Your task to perform on an android device: Open Youtube and go to the subscriptions tab Image 0: 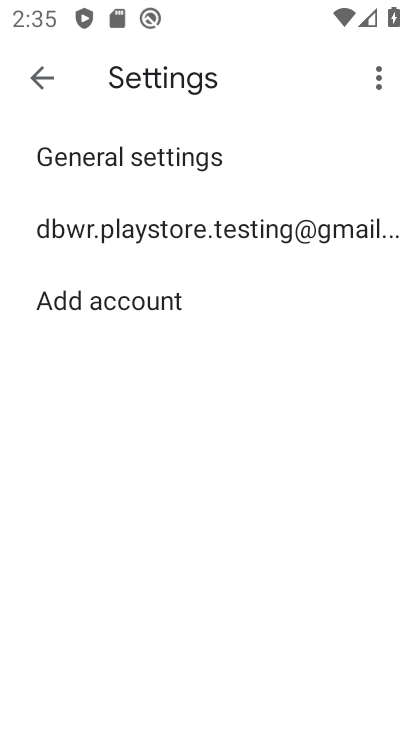
Step 0: click (164, 230)
Your task to perform on an android device: Open Youtube and go to the subscriptions tab Image 1: 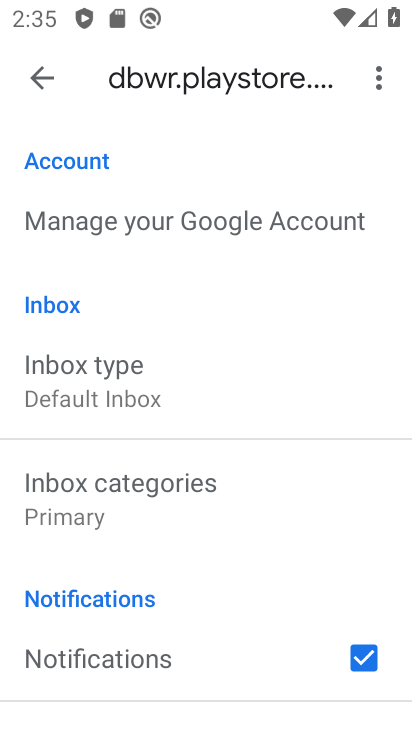
Step 1: press back button
Your task to perform on an android device: Open Youtube and go to the subscriptions tab Image 2: 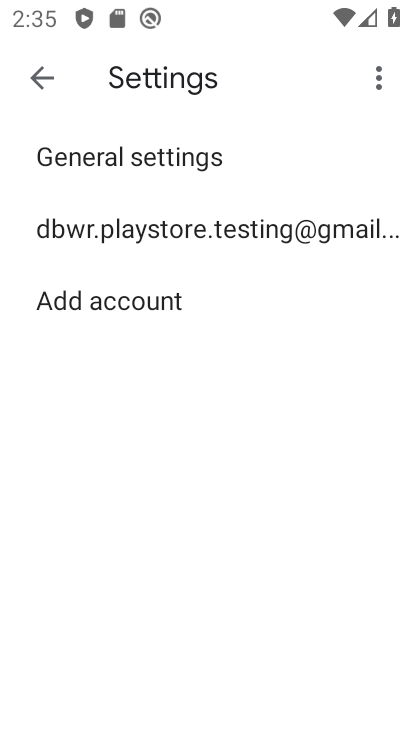
Step 2: press back button
Your task to perform on an android device: Open Youtube and go to the subscriptions tab Image 3: 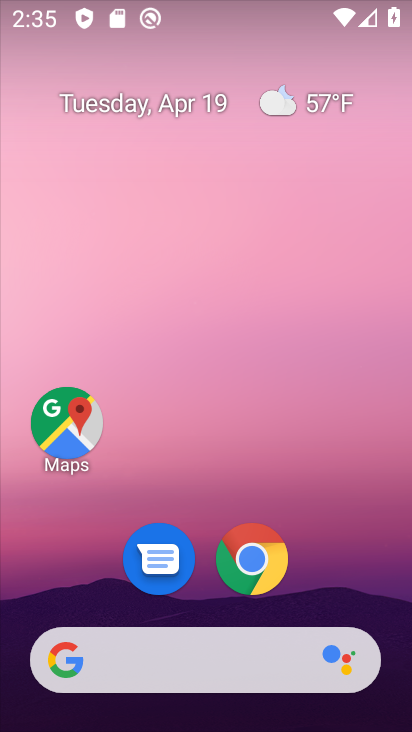
Step 3: drag from (185, 596) to (228, 150)
Your task to perform on an android device: Open Youtube and go to the subscriptions tab Image 4: 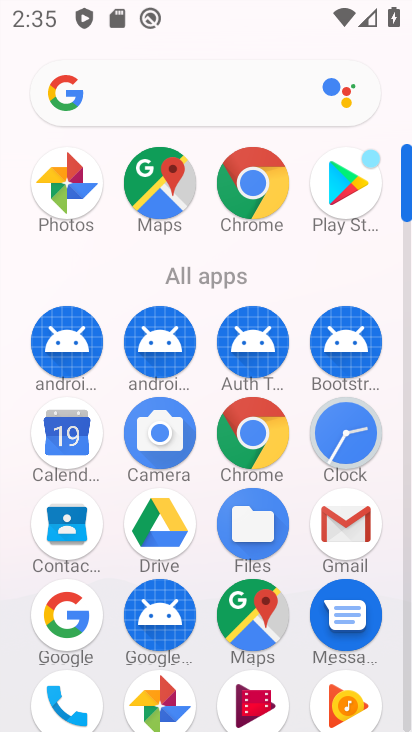
Step 4: drag from (191, 595) to (283, 207)
Your task to perform on an android device: Open Youtube and go to the subscriptions tab Image 5: 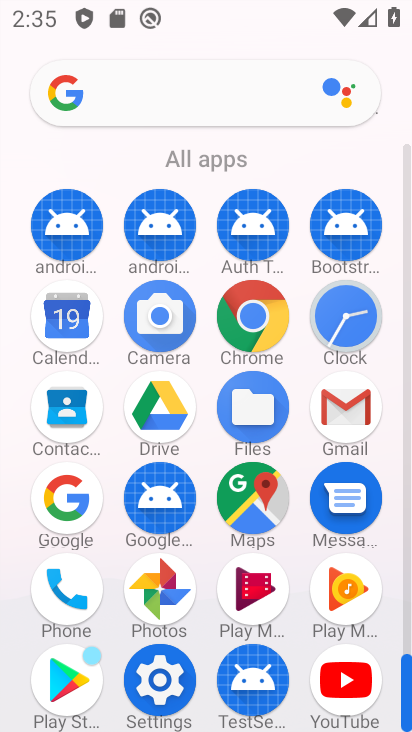
Step 5: click (337, 692)
Your task to perform on an android device: Open Youtube and go to the subscriptions tab Image 6: 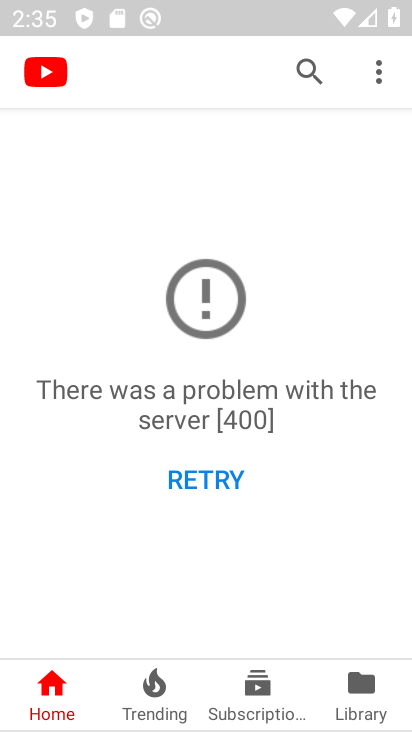
Step 6: click (249, 696)
Your task to perform on an android device: Open Youtube and go to the subscriptions tab Image 7: 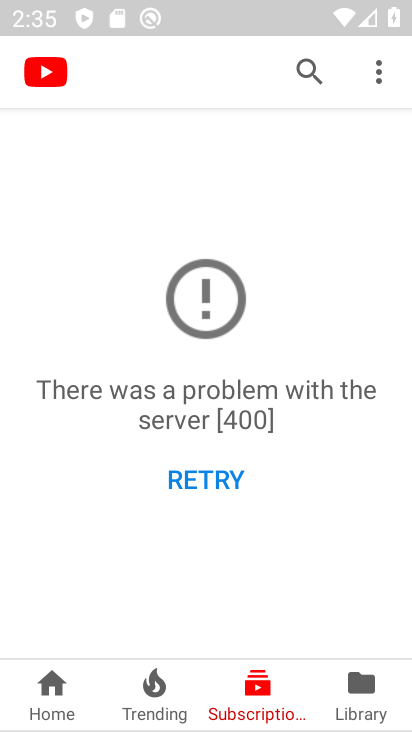
Step 7: task complete